Your task to perform on an android device: Open Google Chrome Image 0: 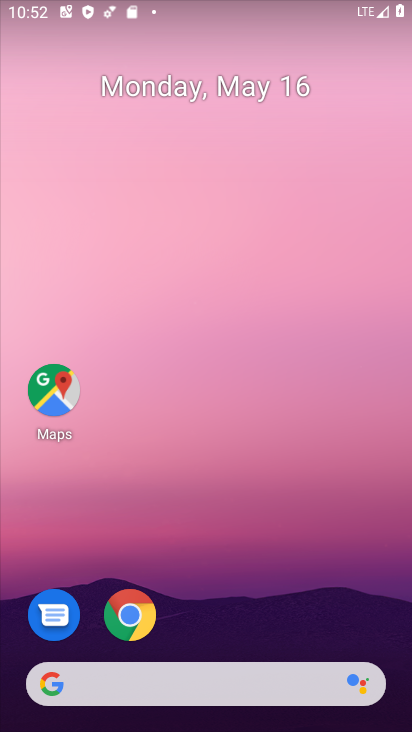
Step 0: drag from (235, 602) to (238, 224)
Your task to perform on an android device: Open Google Chrome Image 1: 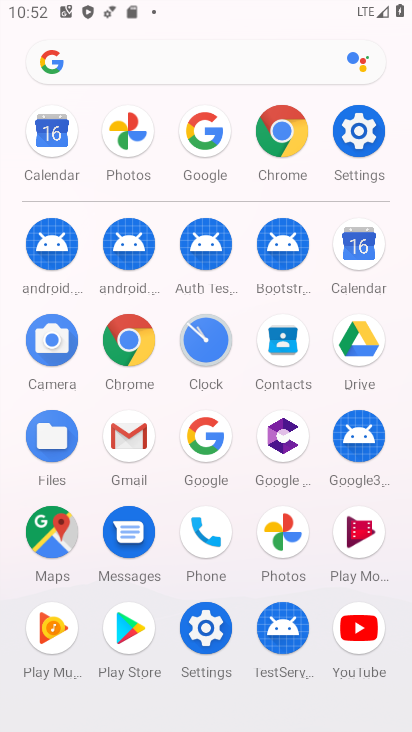
Step 1: click (134, 360)
Your task to perform on an android device: Open Google Chrome Image 2: 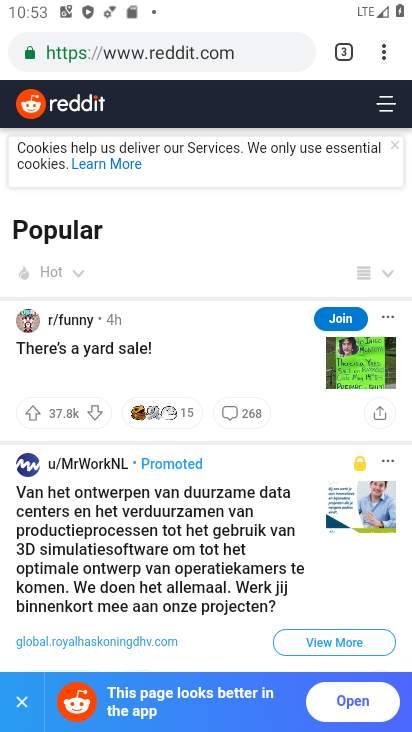
Step 2: task complete